Your task to perform on an android device: Open settings on Google Maps Image 0: 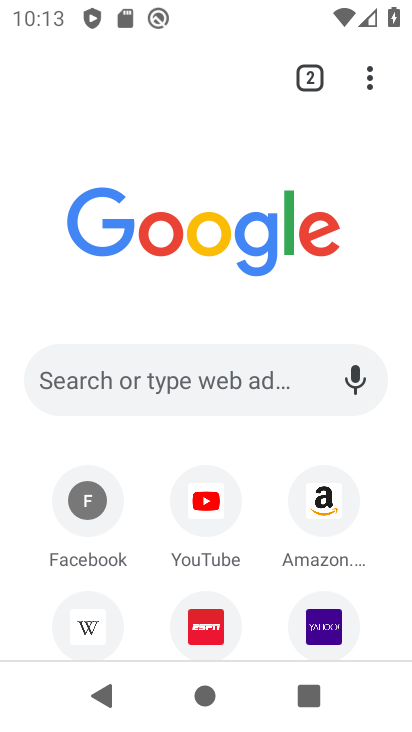
Step 0: press home button
Your task to perform on an android device: Open settings on Google Maps Image 1: 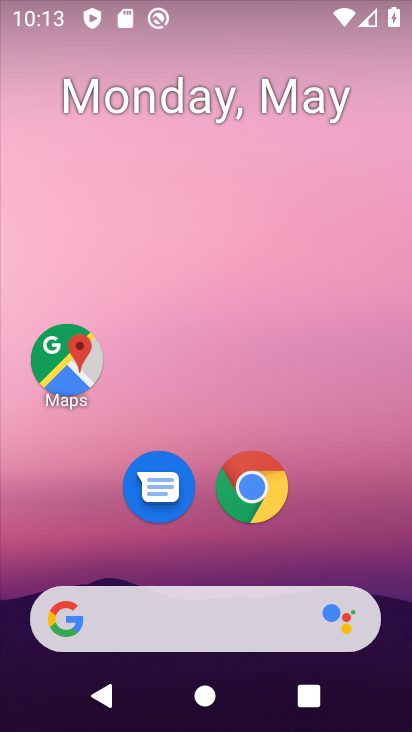
Step 1: drag from (376, 529) to (396, 248)
Your task to perform on an android device: Open settings on Google Maps Image 2: 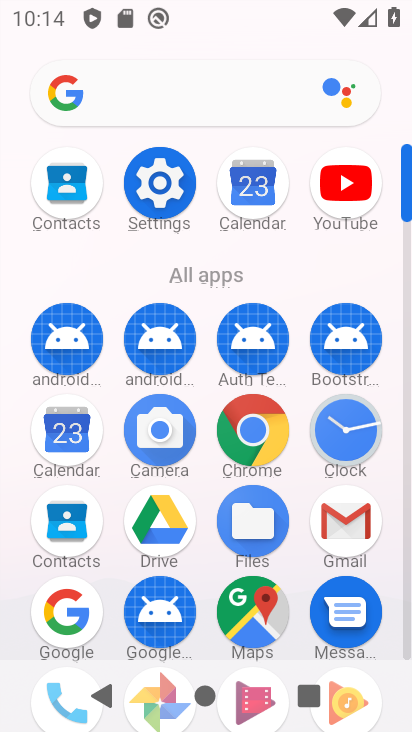
Step 2: drag from (391, 638) to (403, 451)
Your task to perform on an android device: Open settings on Google Maps Image 3: 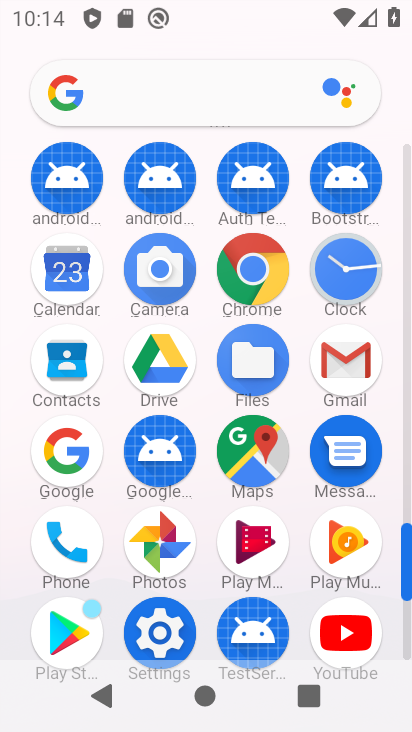
Step 3: drag from (379, 593) to (391, 467)
Your task to perform on an android device: Open settings on Google Maps Image 4: 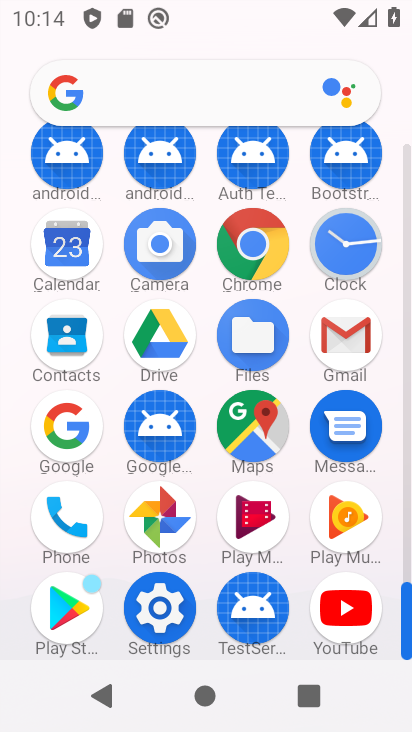
Step 4: click (259, 444)
Your task to perform on an android device: Open settings on Google Maps Image 5: 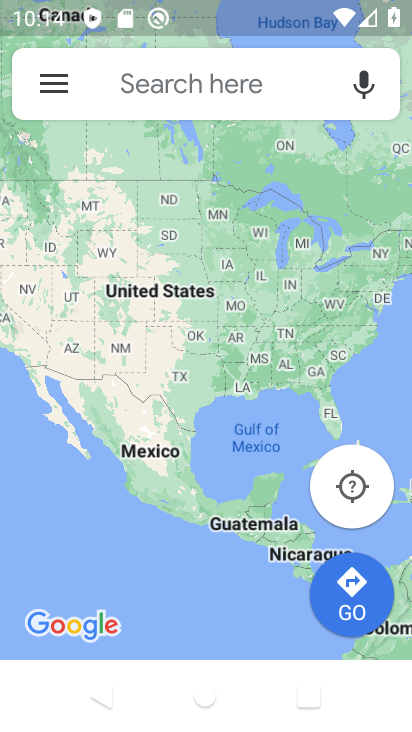
Step 5: click (57, 86)
Your task to perform on an android device: Open settings on Google Maps Image 6: 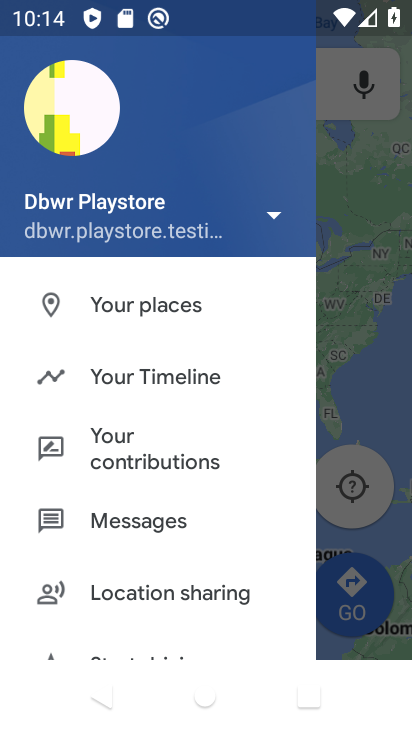
Step 6: drag from (223, 525) to (233, 457)
Your task to perform on an android device: Open settings on Google Maps Image 7: 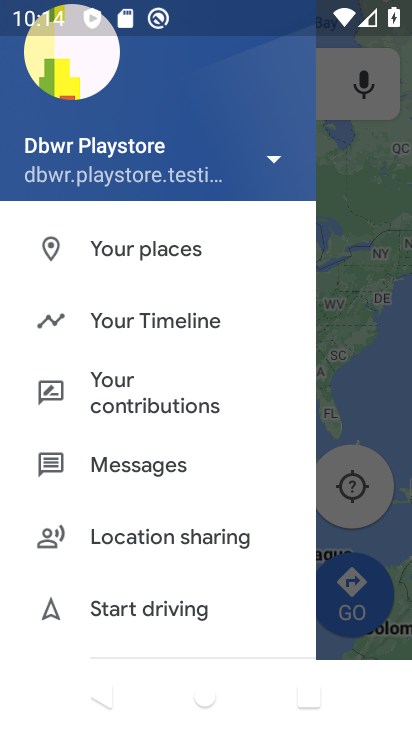
Step 7: click (223, 510)
Your task to perform on an android device: Open settings on Google Maps Image 8: 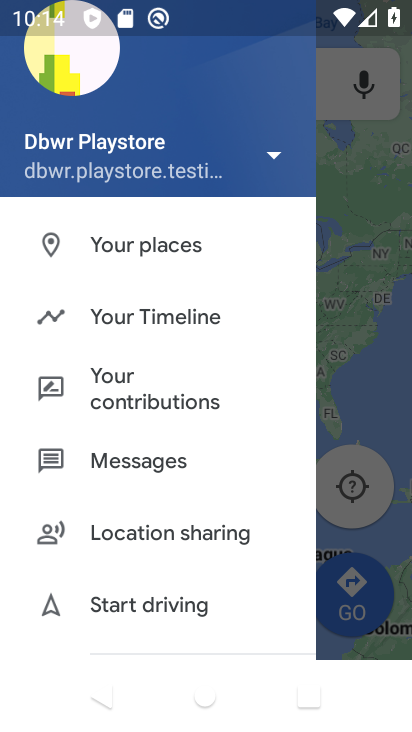
Step 8: drag from (247, 569) to (247, 476)
Your task to perform on an android device: Open settings on Google Maps Image 9: 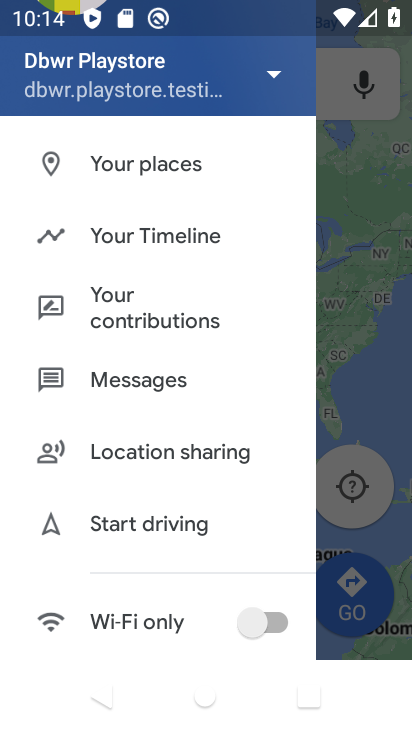
Step 9: drag from (230, 596) to (236, 508)
Your task to perform on an android device: Open settings on Google Maps Image 10: 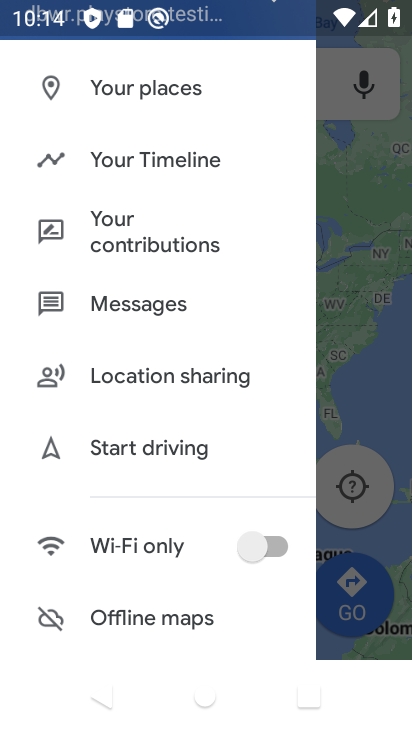
Step 10: drag from (218, 613) to (225, 513)
Your task to perform on an android device: Open settings on Google Maps Image 11: 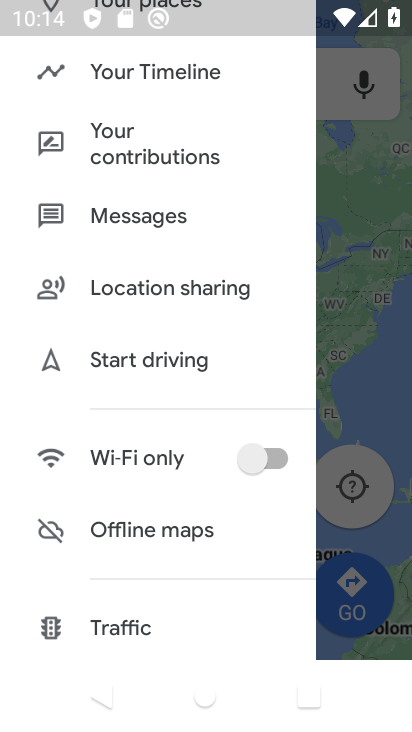
Step 11: drag from (207, 614) to (206, 480)
Your task to perform on an android device: Open settings on Google Maps Image 12: 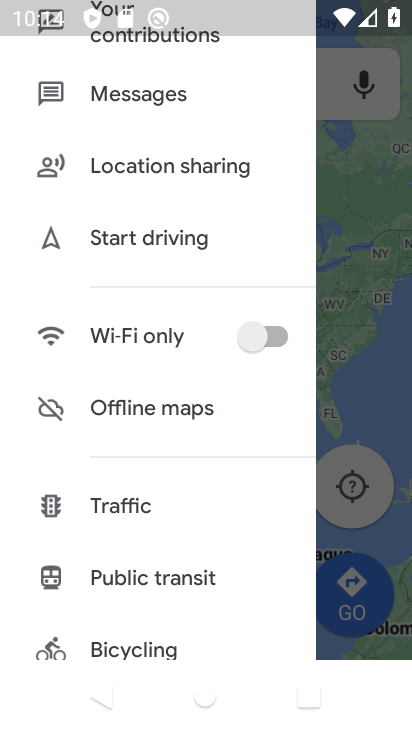
Step 12: drag from (191, 614) to (199, 496)
Your task to perform on an android device: Open settings on Google Maps Image 13: 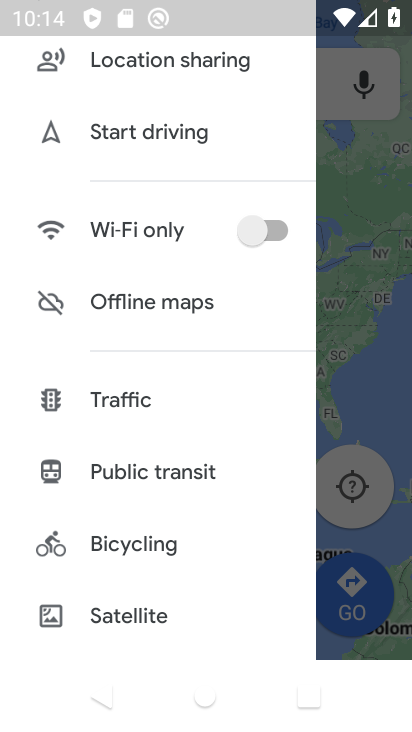
Step 13: drag from (206, 616) to (209, 553)
Your task to perform on an android device: Open settings on Google Maps Image 14: 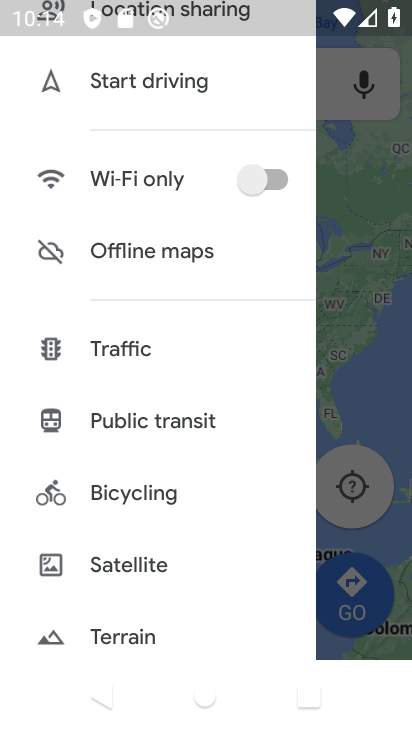
Step 14: drag from (217, 609) to (226, 387)
Your task to perform on an android device: Open settings on Google Maps Image 15: 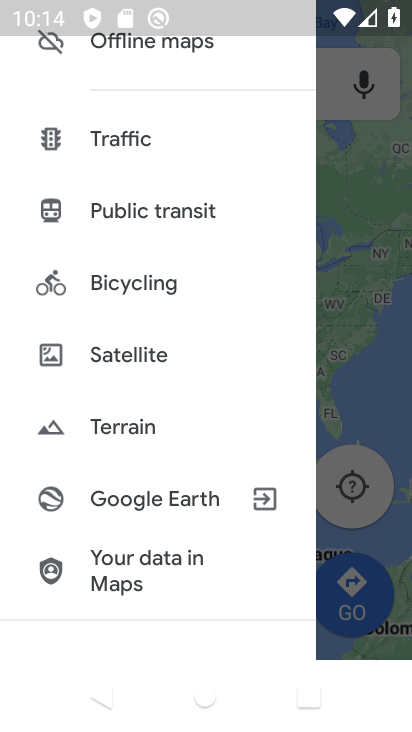
Step 15: drag from (220, 586) to (235, 415)
Your task to perform on an android device: Open settings on Google Maps Image 16: 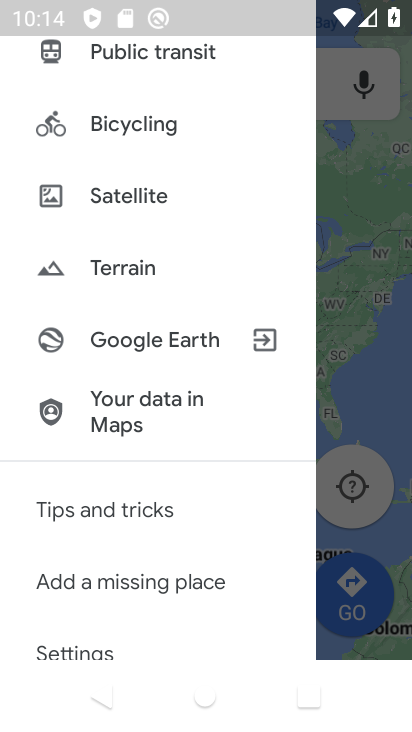
Step 16: drag from (220, 615) to (228, 474)
Your task to perform on an android device: Open settings on Google Maps Image 17: 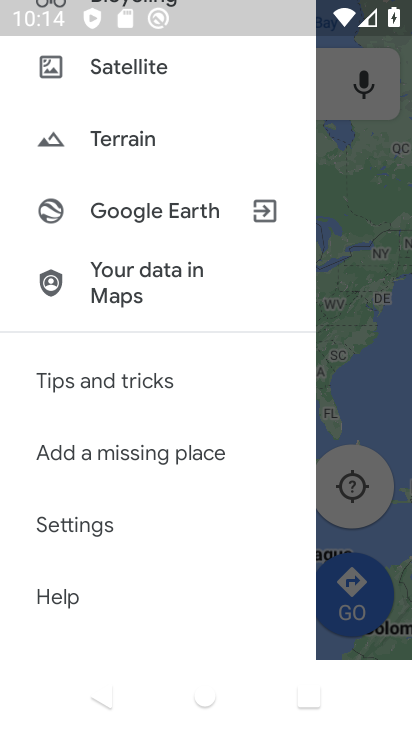
Step 17: click (96, 522)
Your task to perform on an android device: Open settings on Google Maps Image 18: 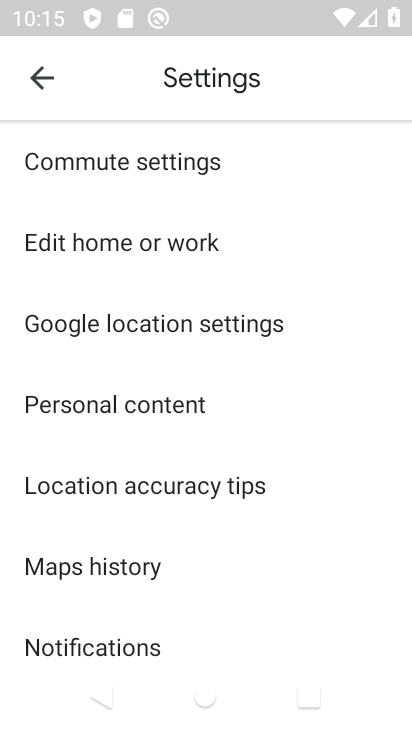
Step 18: task complete